Your task to perform on an android device: turn on the 12-hour format for clock Image 0: 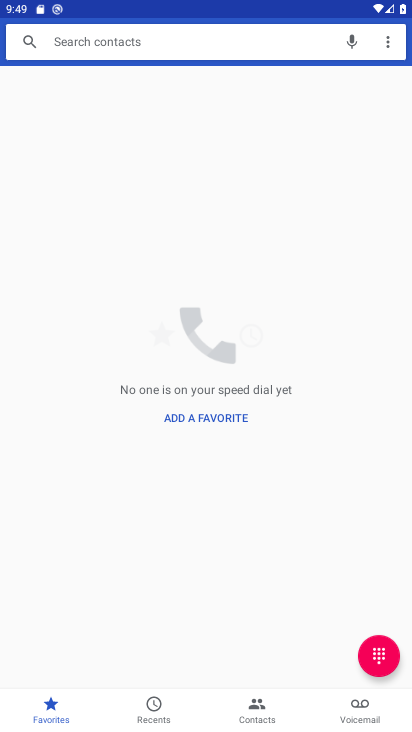
Step 0: press home button
Your task to perform on an android device: turn on the 12-hour format for clock Image 1: 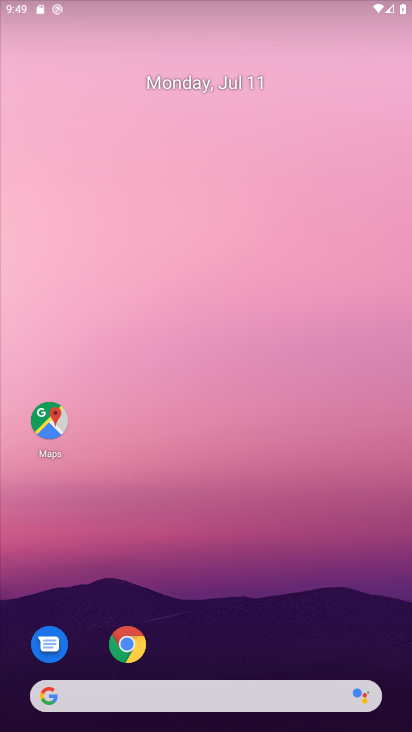
Step 1: drag from (224, 613) to (290, 117)
Your task to perform on an android device: turn on the 12-hour format for clock Image 2: 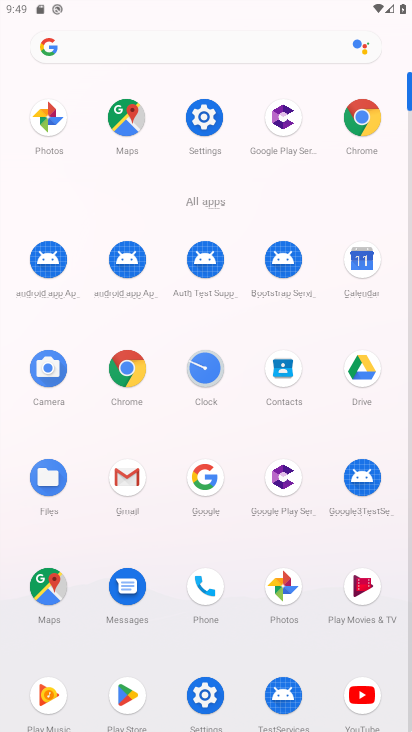
Step 2: click (201, 360)
Your task to perform on an android device: turn on the 12-hour format for clock Image 3: 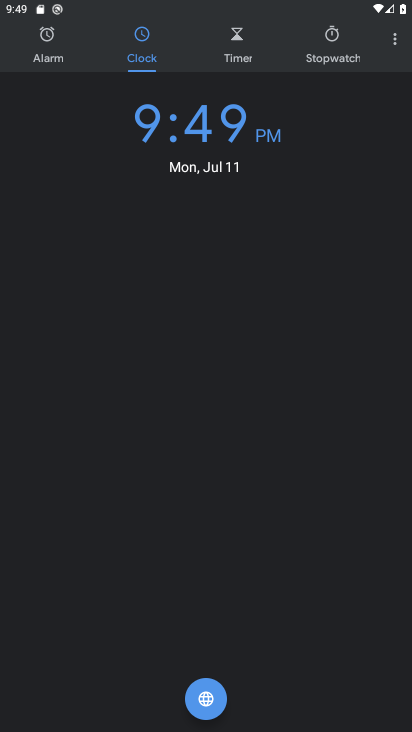
Step 3: click (397, 52)
Your task to perform on an android device: turn on the 12-hour format for clock Image 4: 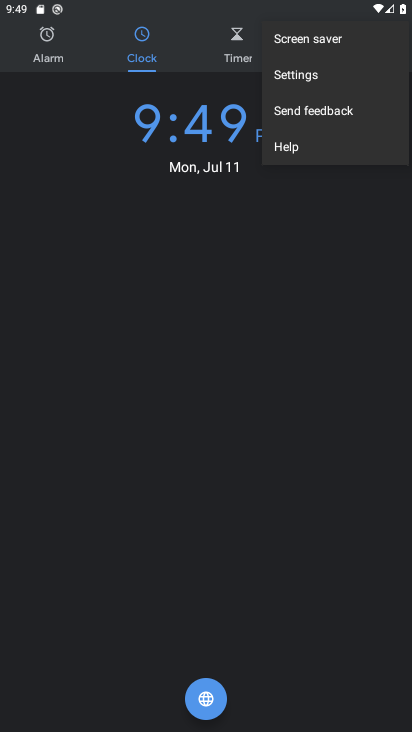
Step 4: click (290, 69)
Your task to perform on an android device: turn on the 12-hour format for clock Image 5: 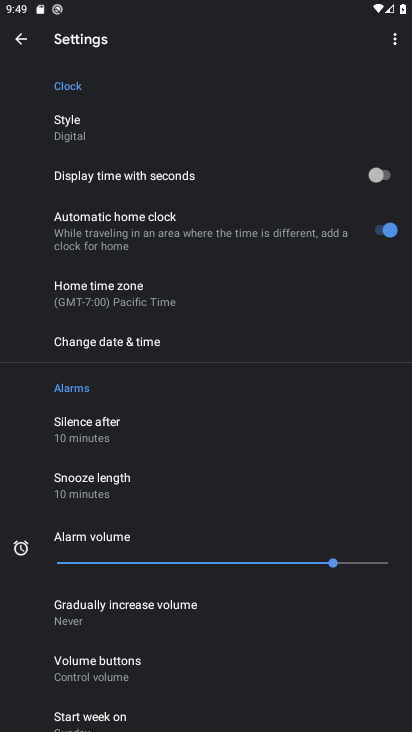
Step 5: click (120, 347)
Your task to perform on an android device: turn on the 12-hour format for clock Image 6: 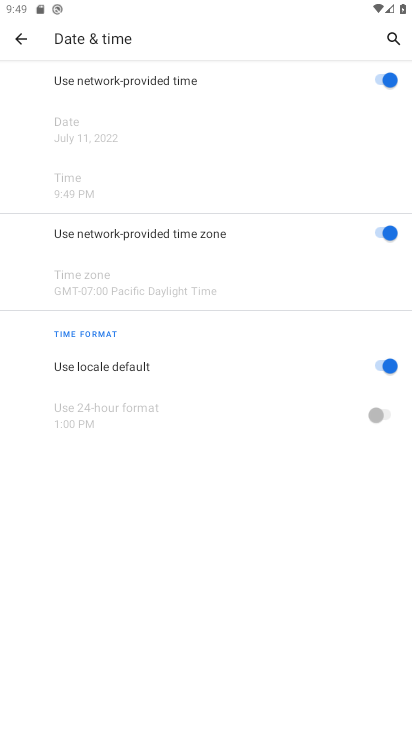
Step 6: task complete